Your task to perform on an android device: add a contact in the contacts app Image 0: 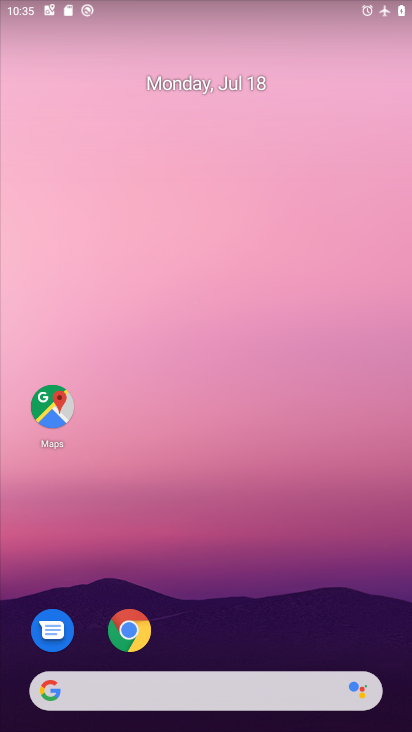
Step 0: drag from (218, 638) to (210, 199)
Your task to perform on an android device: add a contact in the contacts app Image 1: 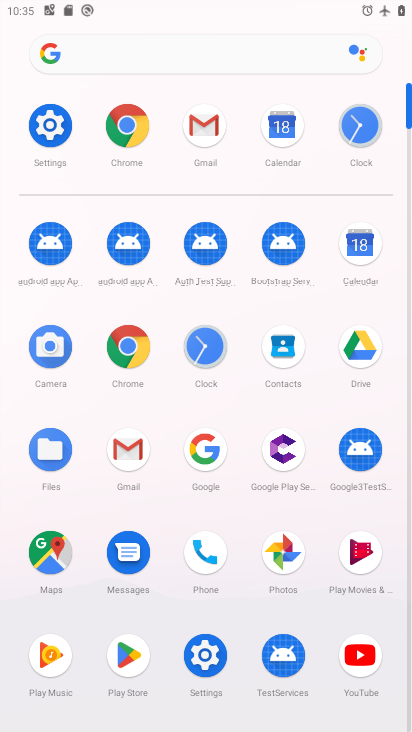
Step 1: click (267, 344)
Your task to perform on an android device: add a contact in the contacts app Image 2: 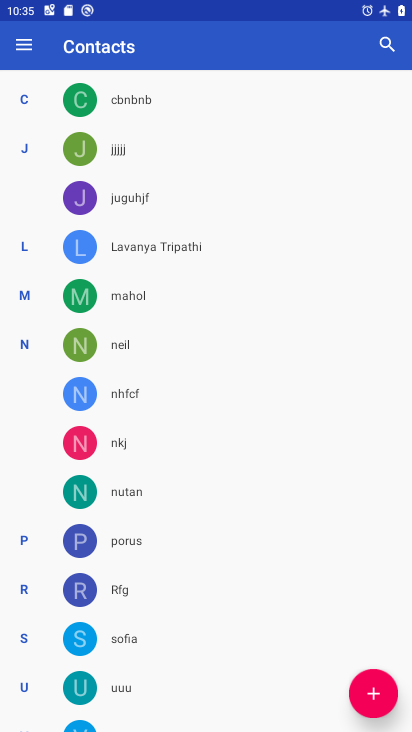
Step 2: click (363, 687)
Your task to perform on an android device: add a contact in the contacts app Image 3: 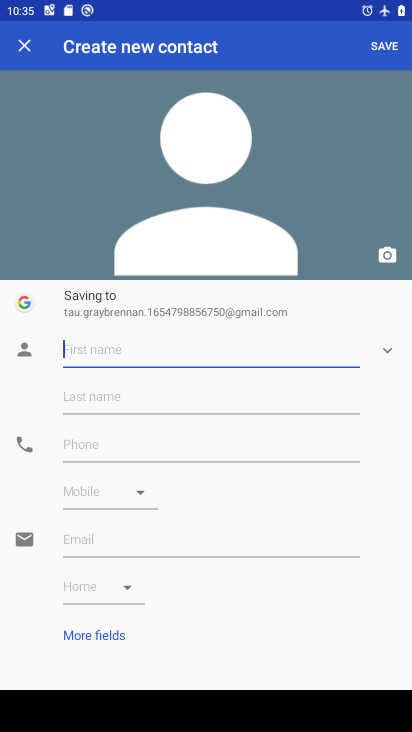
Step 3: click (175, 351)
Your task to perform on an android device: add a contact in the contacts app Image 4: 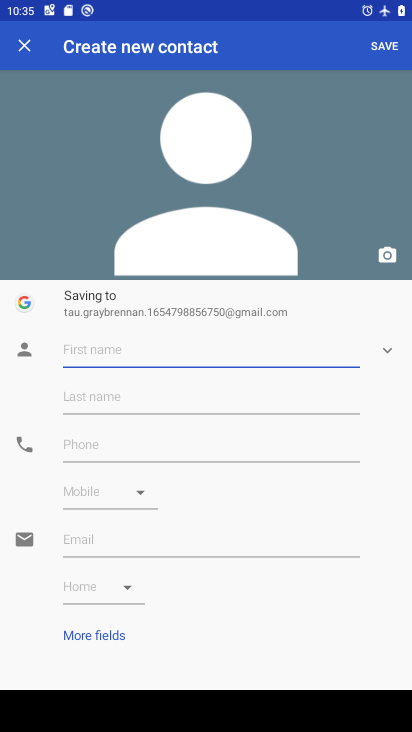
Step 4: type "fgfdgb"
Your task to perform on an android device: add a contact in the contacts app Image 5: 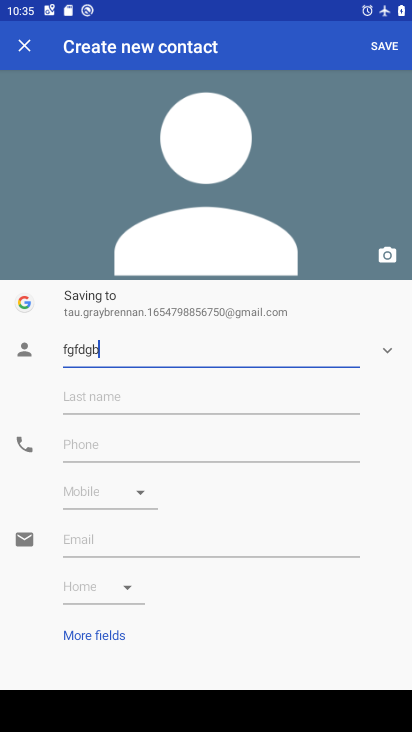
Step 5: click (146, 451)
Your task to perform on an android device: add a contact in the contacts app Image 6: 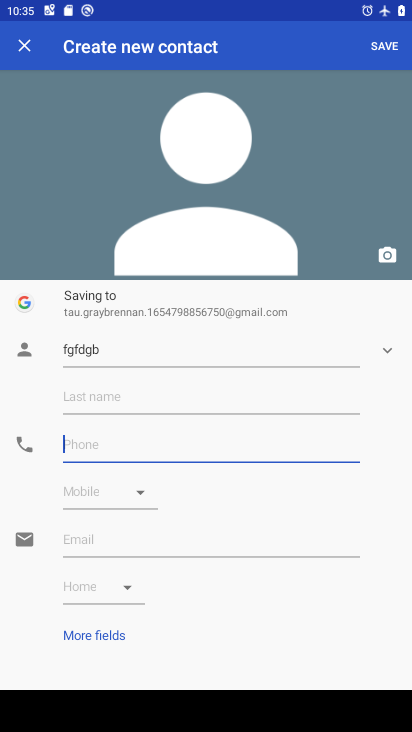
Step 6: type "8467556465"
Your task to perform on an android device: add a contact in the contacts app Image 7: 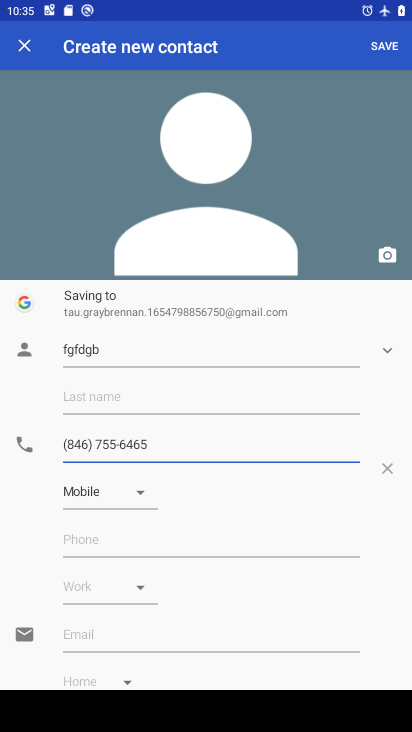
Step 7: click (391, 40)
Your task to perform on an android device: add a contact in the contacts app Image 8: 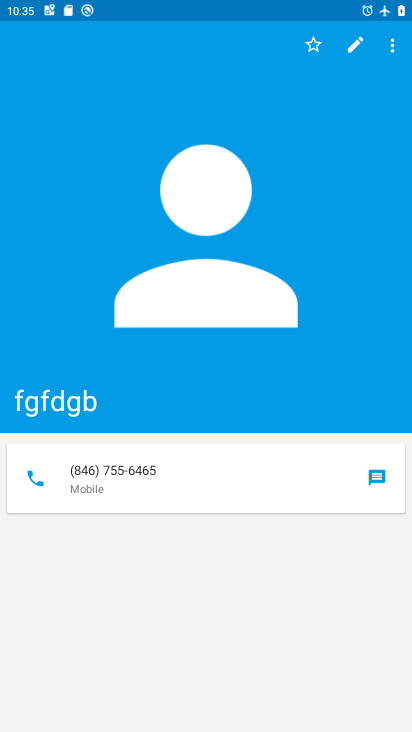
Step 8: task complete